Your task to perform on an android device: toggle airplane mode Image 0: 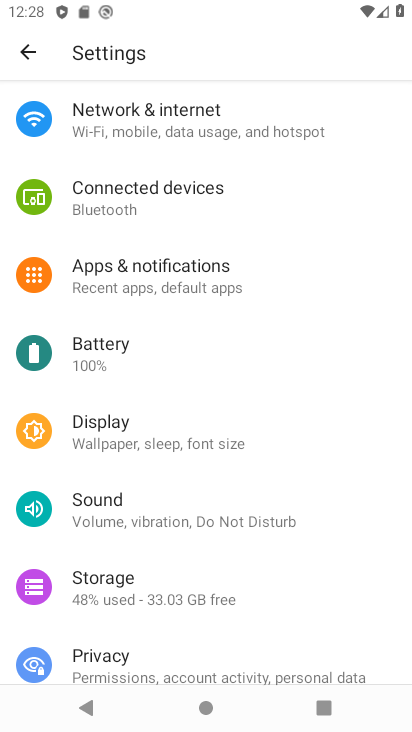
Step 0: click (224, 139)
Your task to perform on an android device: toggle airplane mode Image 1: 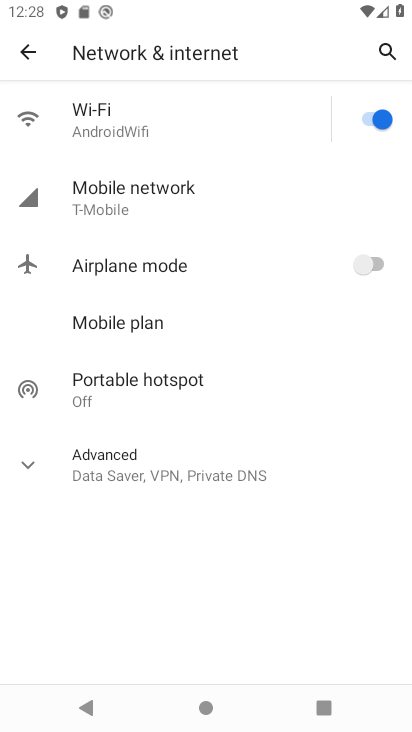
Step 1: click (179, 277)
Your task to perform on an android device: toggle airplane mode Image 2: 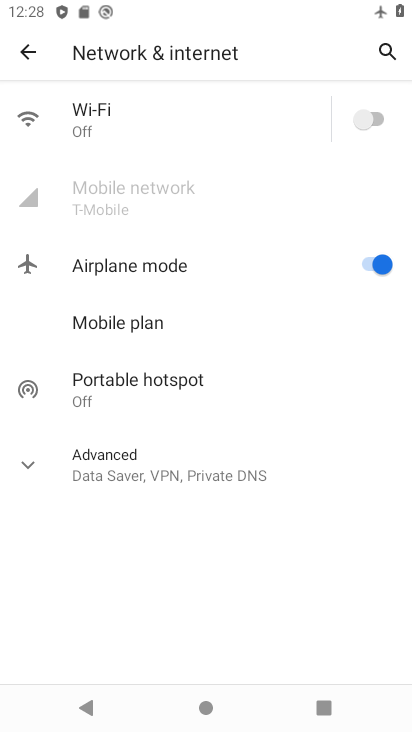
Step 2: task complete